Your task to perform on an android device: Go to Amazon Image 0: 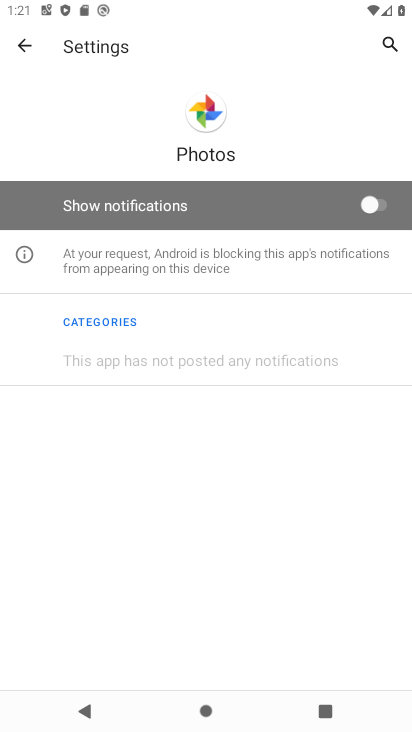
Step 0: press home button
Your task to perform on an android device: Go to Amazon Image 1: 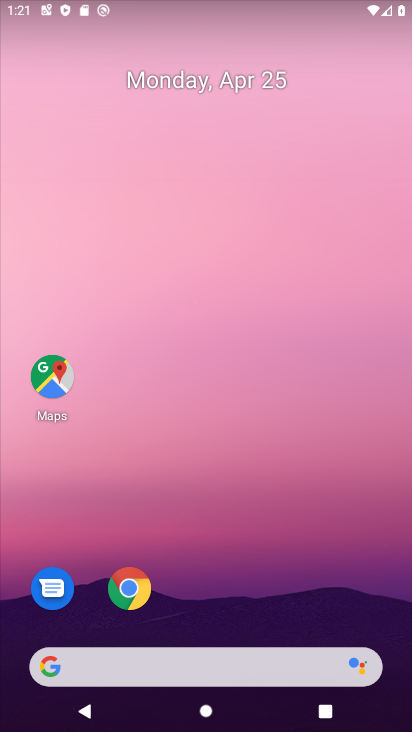
Step 1: drag from (225, 628) to (303, 227)
Your task to perform on an android device: Go to Amazon Image 2: 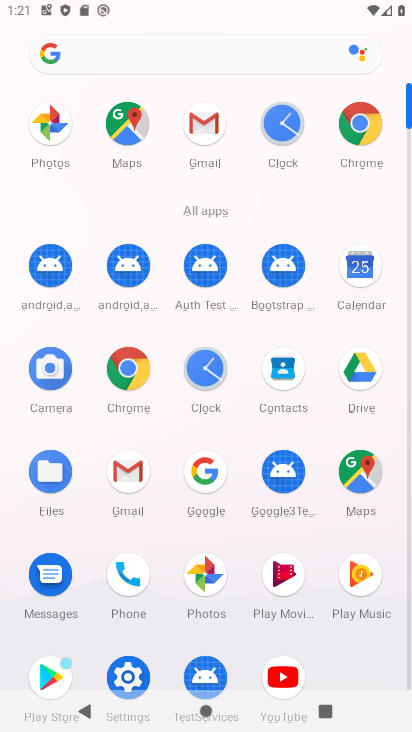
Step 2: click (358, 135)
Your task to perform on an android device: Go to Amazon Image 3: 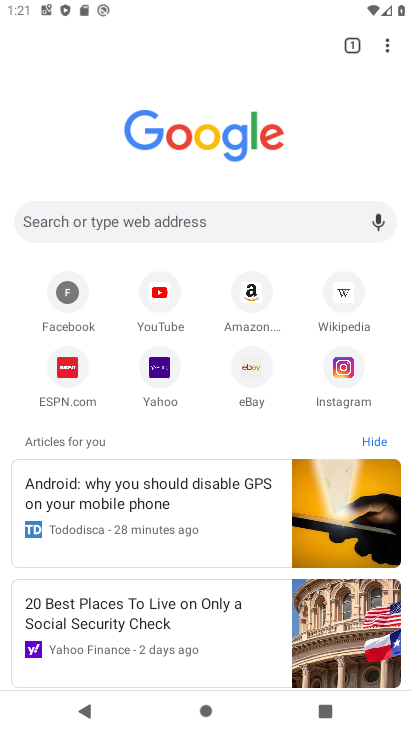
Step 3: click (251, 298)
Your task to perform on an android device: Go to Amazon Image 4: 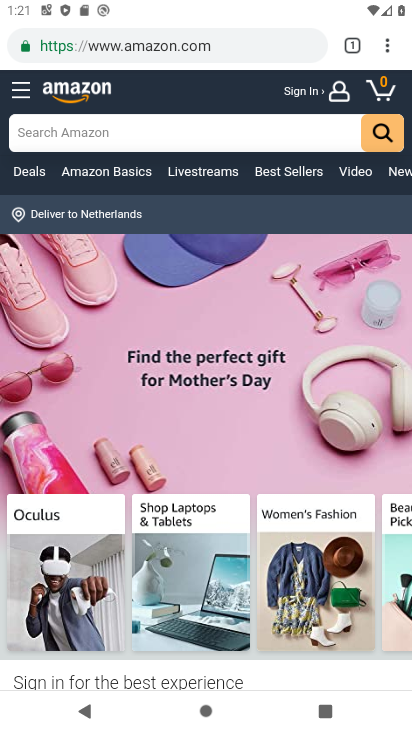
Step 4: task complete